Your task to perform on an android device: Search for a custom made wallet Image 0: 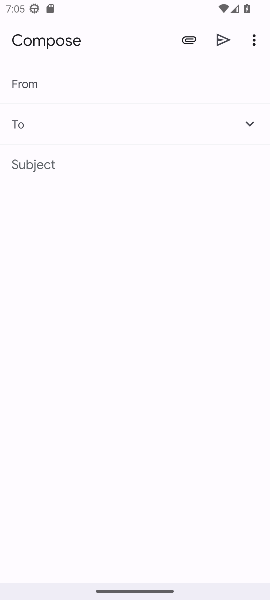
Step 0: press home button
Your task to perform on an android device: Search for a custom made wallet Image 1: 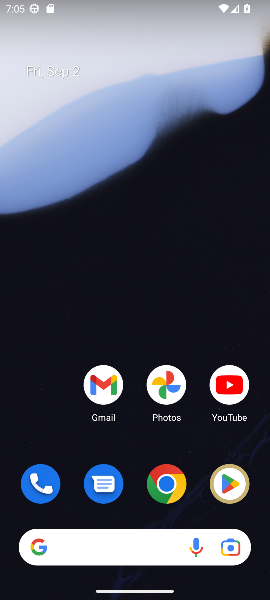
Step 1: click (158, 485)
Your task to perform on an android device: Search for a custom made wallet Image 2: 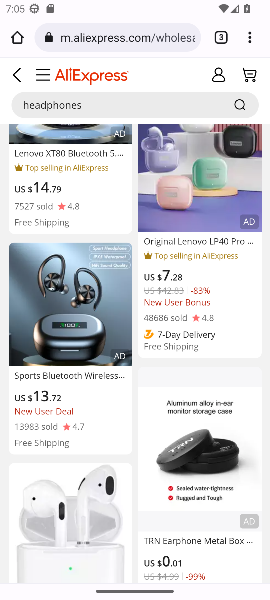
Step 2: click (159, 34)
Your task to perform on an android device: Search for a custom made wallet Image 3: 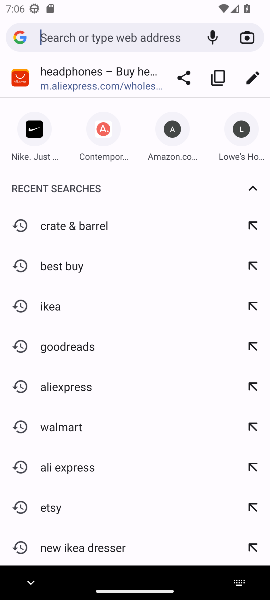
Step 3: type "custom made wallet"
Your task to perform on an android device: Search for a custom made wallet Image 4: 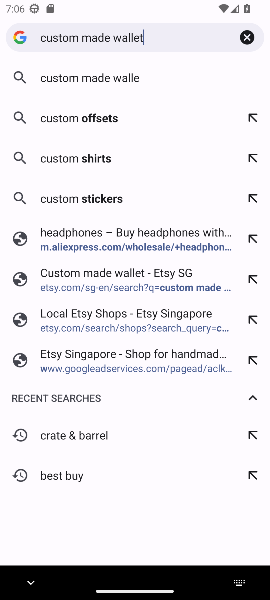
Step 4: press enter
Your task to perform on an android device: Search for a custom made wallet Image 5: 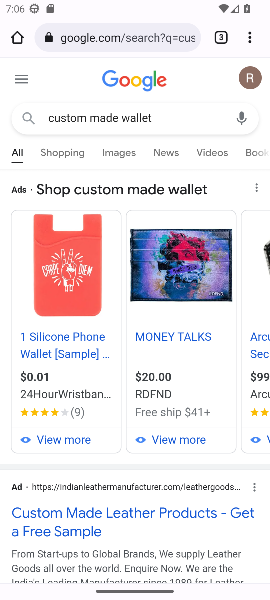
Step 5: task complete